Your task to perform on an android device: Go to internet settings Image 0: 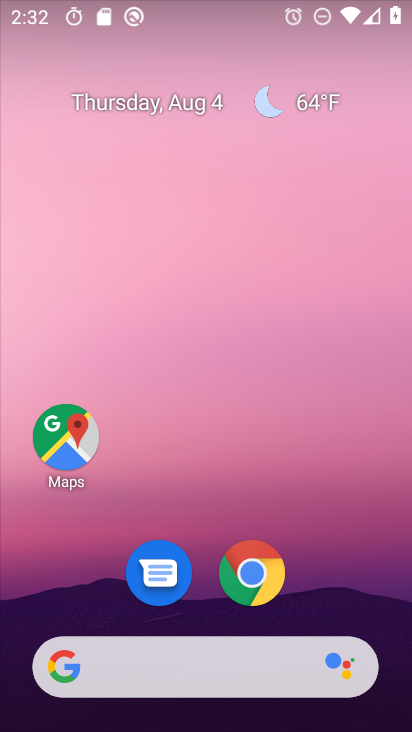
Step 0: click (318, 98)
Your task to perform on an android device: Go to internet settings Image 1: 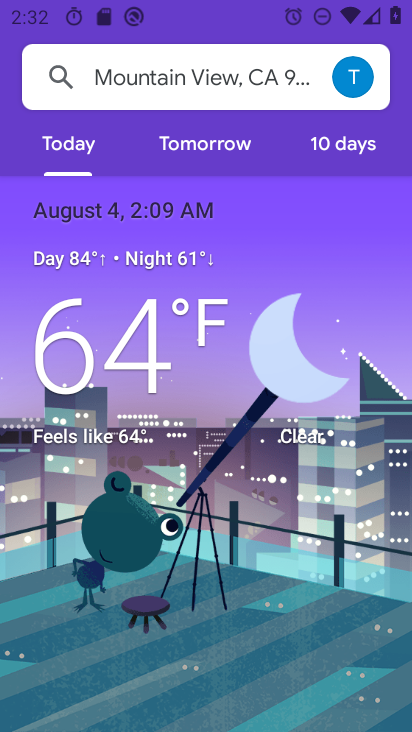
Step 1: press home button
Your task to perform on an android device: Go to internet settings Image 2: 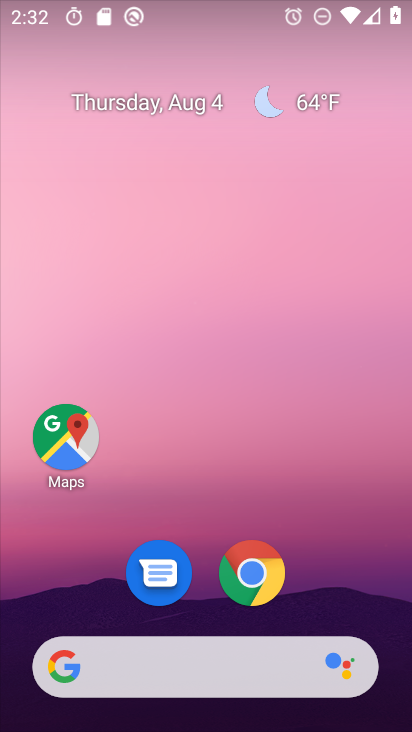
Step 2: drag from (326, 457) to (315, 105)
Your task to perform on an android device: Go to internet settings Image 3: 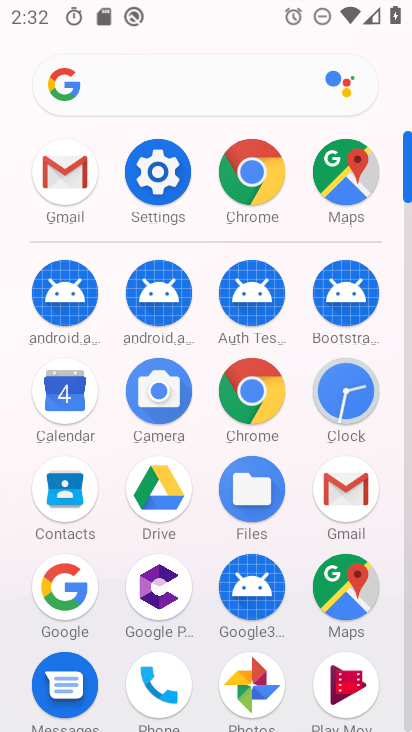
Step 3: click (171, 179)
Your task to perform on an android device: Go to internet settings Image 4: 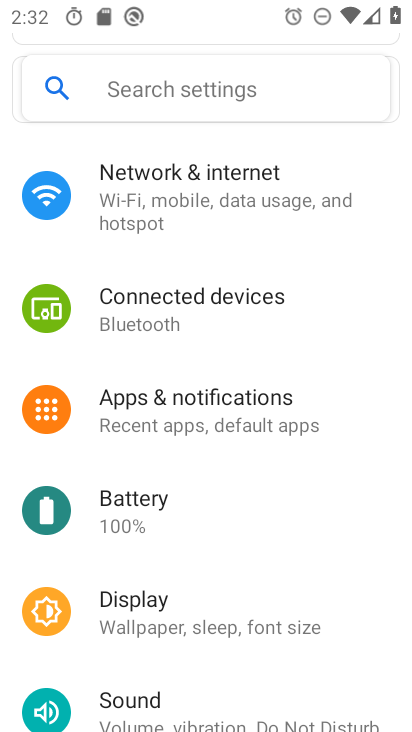
Step 4: click (169, 194)
Your task to perform on an android device: Go to internet settings Image 5: 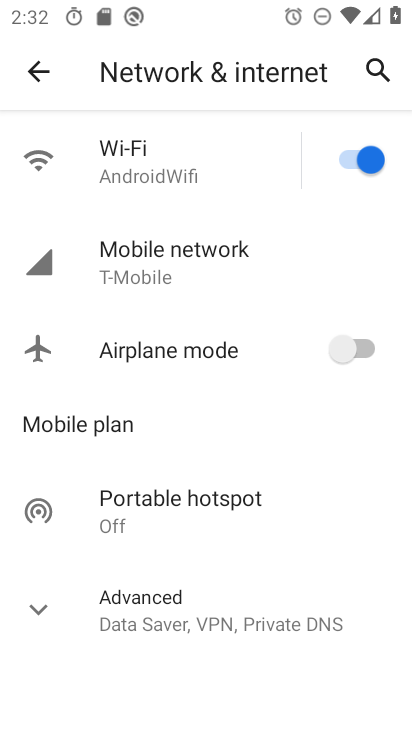
Step 5: click (157, 602)
Your task to perform on an android device: Go to internet settings Image 6: 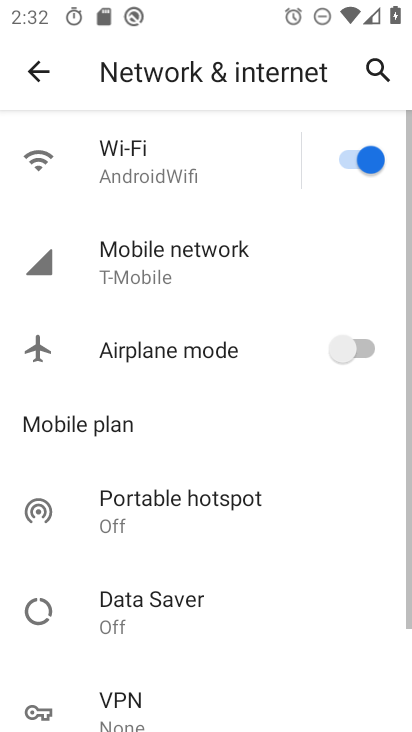
Step 6: task complete